Your task to perform on an android device: Open Chrome and go to settings Image 0: 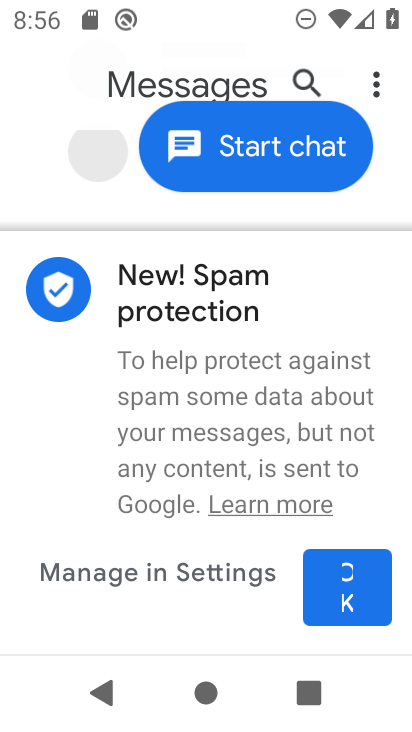
Step 0: press home button
Your task to perform on an android device: Open Chrome and go to settings Image 1: 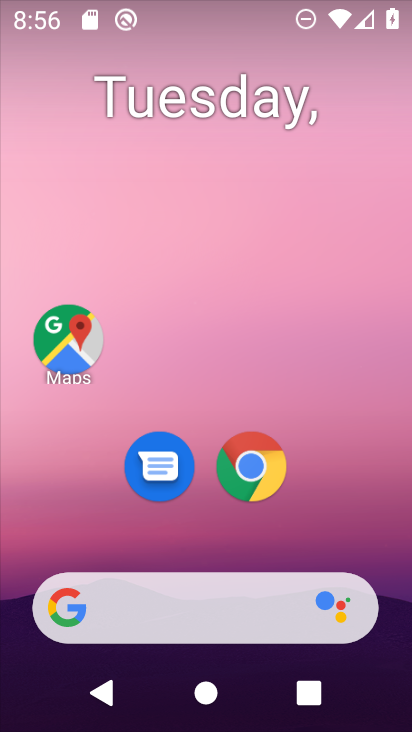
Step 1: click (271, 449)
Your task to perform on an android device: Open Chrome and go to settings Image 2: 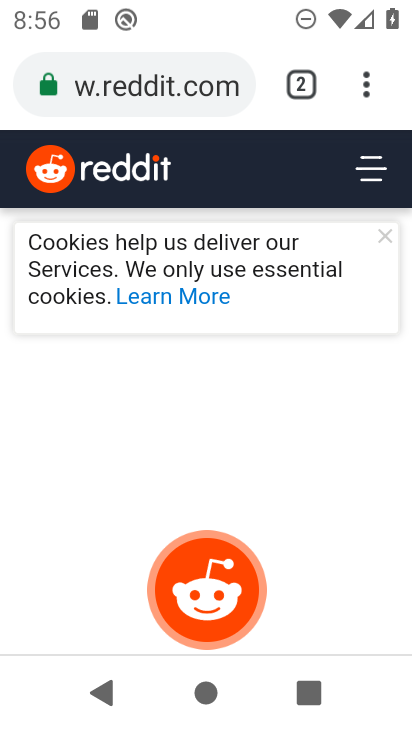
Step 2: click (366, 84)
Your task to perform on an android device: Open Chrome and go to settings Image 3: 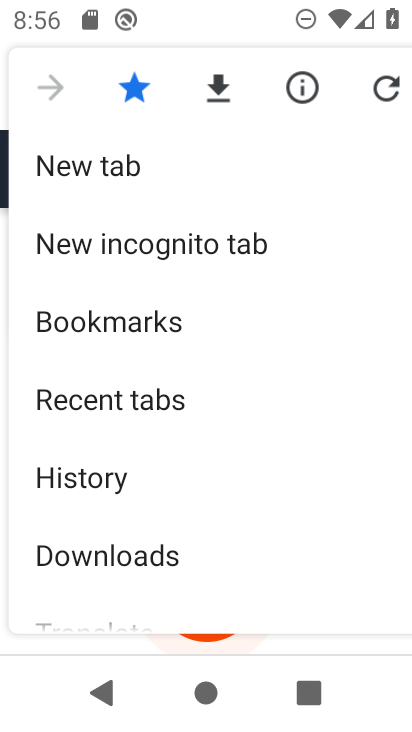
Step 3: drag from (131, 497) to (182, 273)
Your task to perform on an android device: Open Chrome and go to settings Image 4: 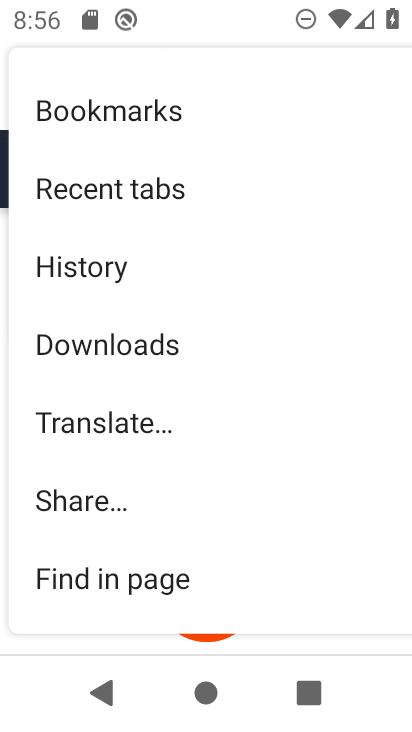
Step 4: drag from (132, 547) to (178, 370)
Your task to perform on an android device: Open Chrome and go to settings Image 5: 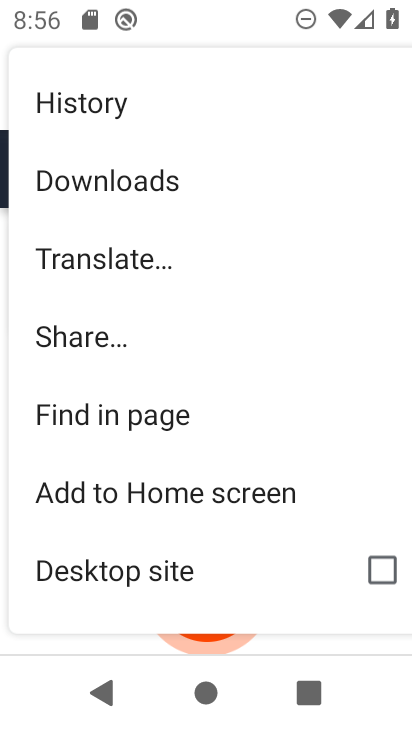
Step 5: drag from (171, 572) to (201, 170)
Your task to perform on an android device: Open Chrome and go to settings Image 6: 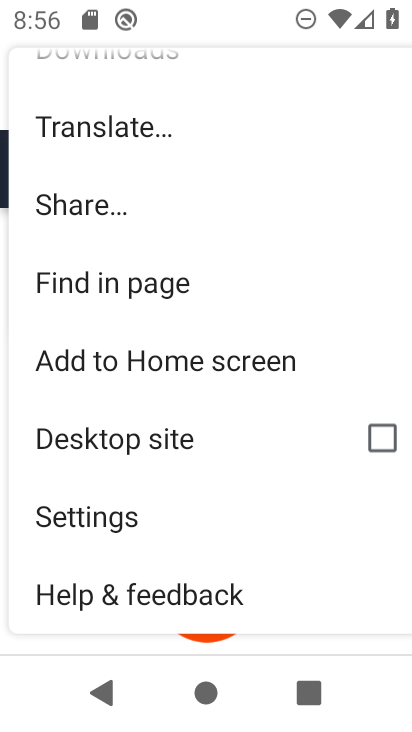
Step 6: click (102, 523)
Your task to perform on an android device: Open Chrome and go to settings Image 7: 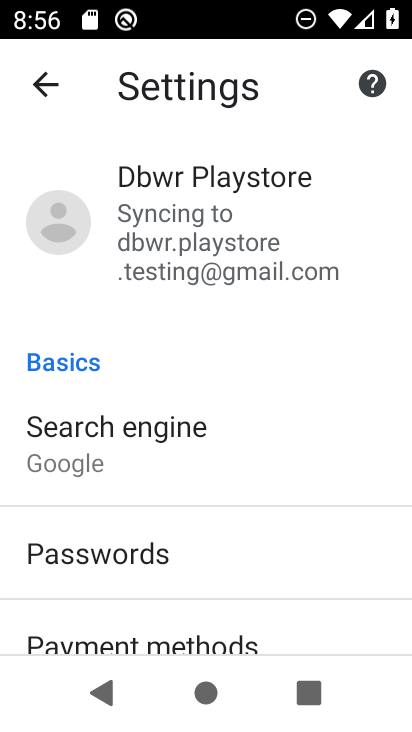
Step 7: task complete